Your task to perform on an android device: turn on improve location accuracy Image 0: 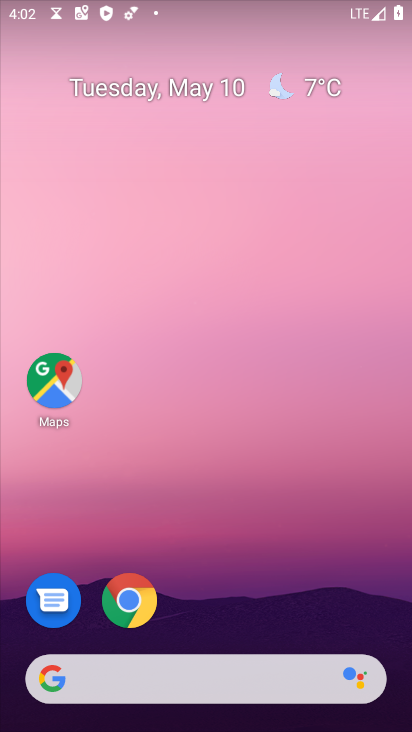
Step 0: drag from (276, 603) to (289, 428)
Your task to perform on an android device: turn on improve location accuracy Image 1: 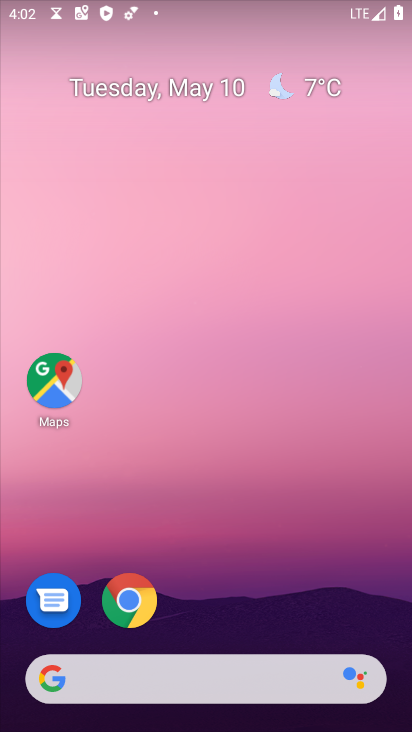
Step 1: drag from (273, 565) to (269, 11)
Your task to perform on an android device: turn on improve location accuracy Image 2: 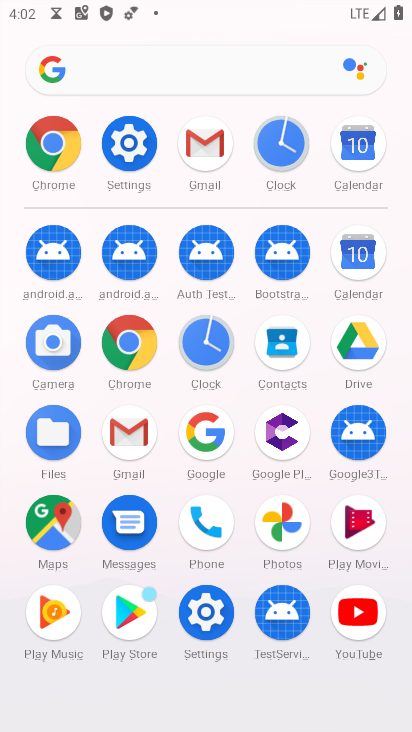
Step 2: click (110, 138)
Your task to perform on an android device: turn on improve location accuracy Image 3: 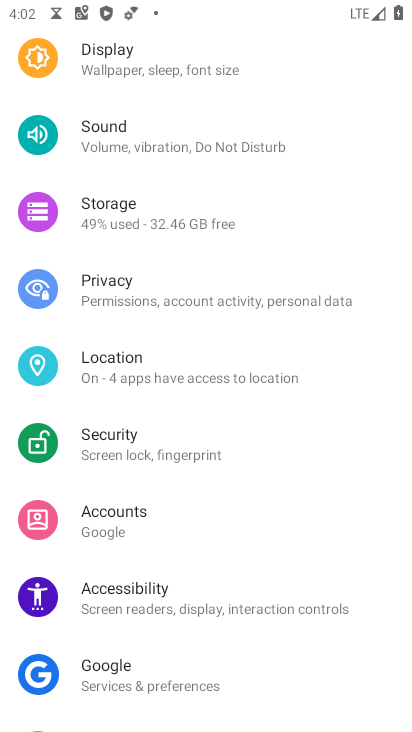
Step 3: click (221, 368)
Your task to perform on an android device: turn on improve location accuracy Image 4: 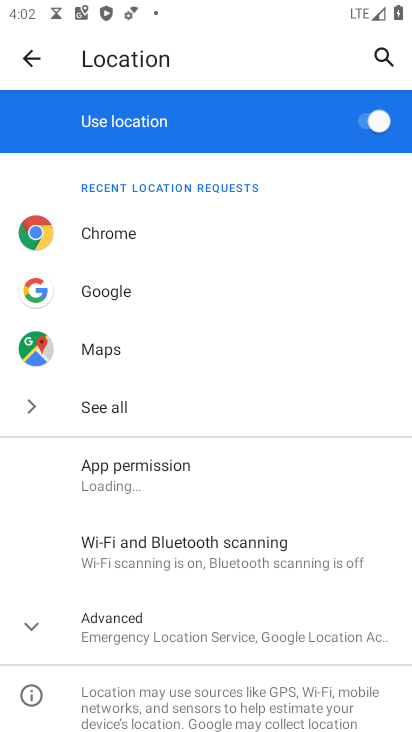
Step 4: task complete